Your task to perform on an android device: refresh tabs in the chrome app Image 0: 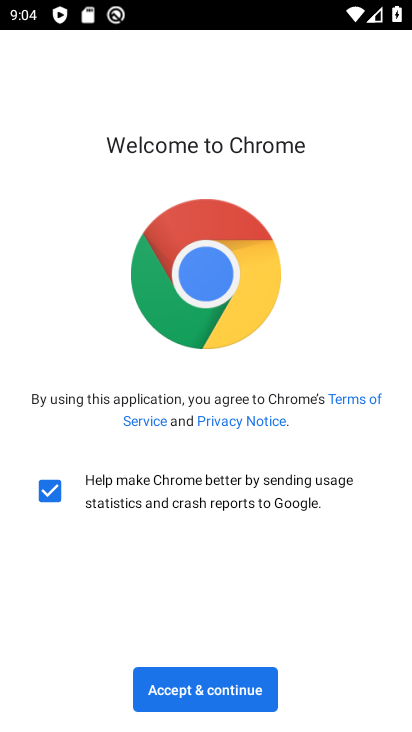
Step 0: press back button
Your task to perform on an android device: refresh tabs in the chrome app Image 1: 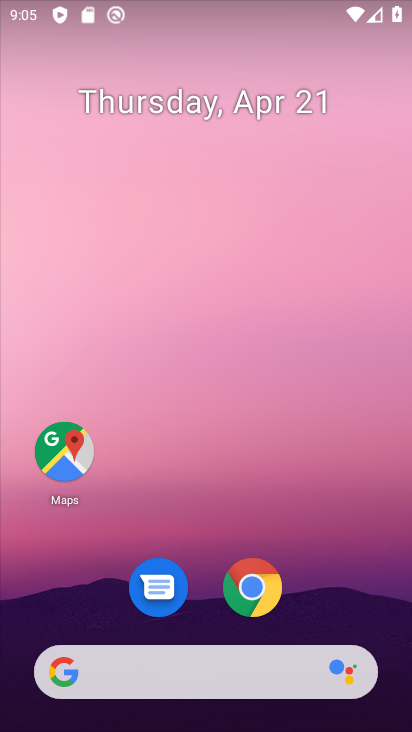
Step 1: click (248, 590)
Your task to perform on an android device: refresh tabs in the chrome app Image 2: 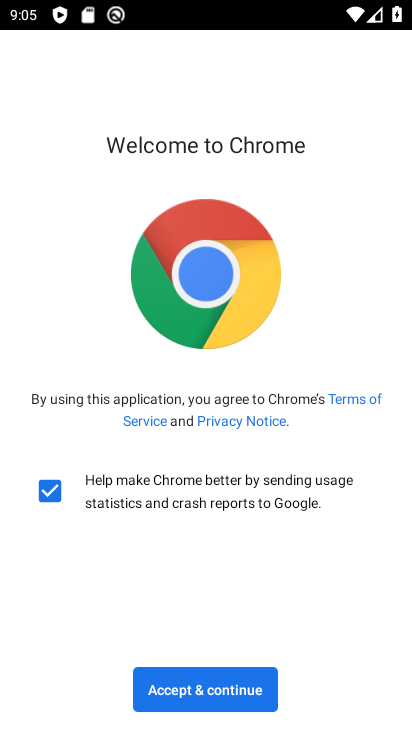
Step 2: click (181, 690)
Your task to perform on an android device: refresh tabs in the chrome app Image 3: 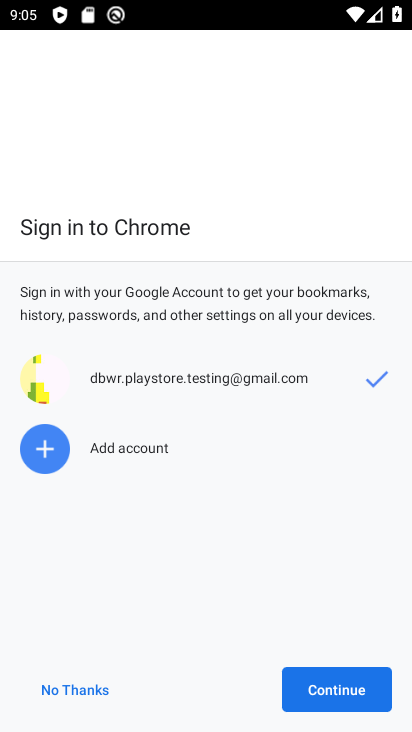
Step 3: click (333, 684)
Your task to perform on an android device: refresh tabs in the chrome app Image 4: 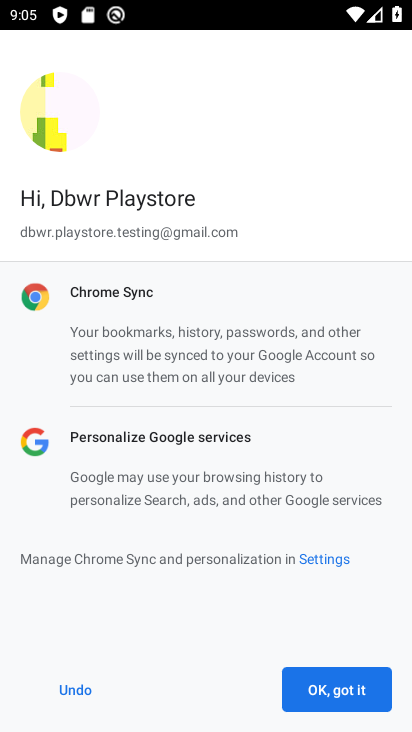
Step 4: click (333, 684)
Your task to perform on an android device: refresh tabs in the chrome app Image 5: 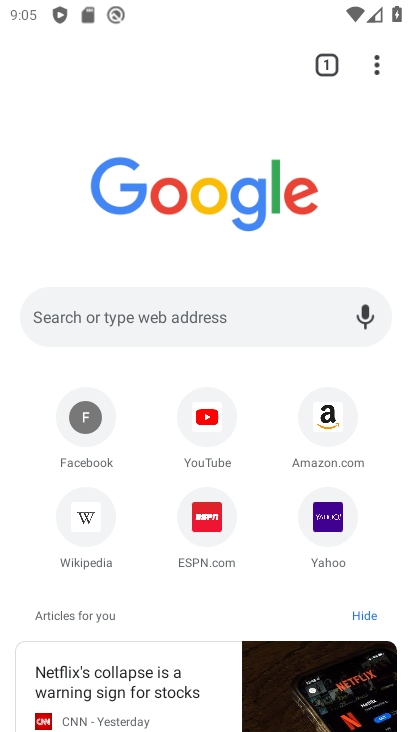
Step 5: click (379, 63)
Your task to perform on an android device: refresh tabs in the chrome app Image 6: 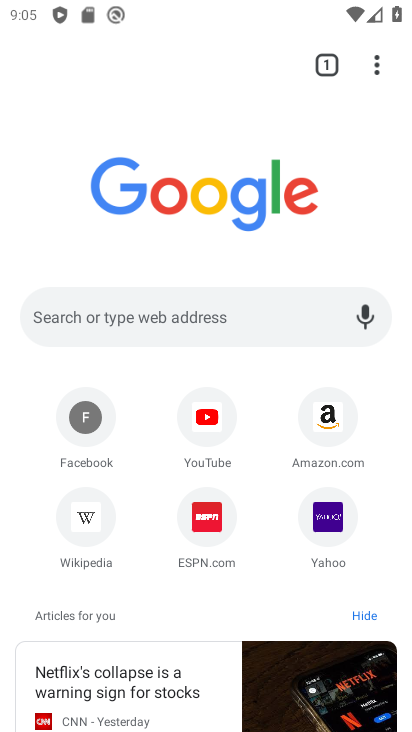
Step 6: click (378, 68)
Your task to perform on an android device: refresh tabs in the chrome app Image 7: 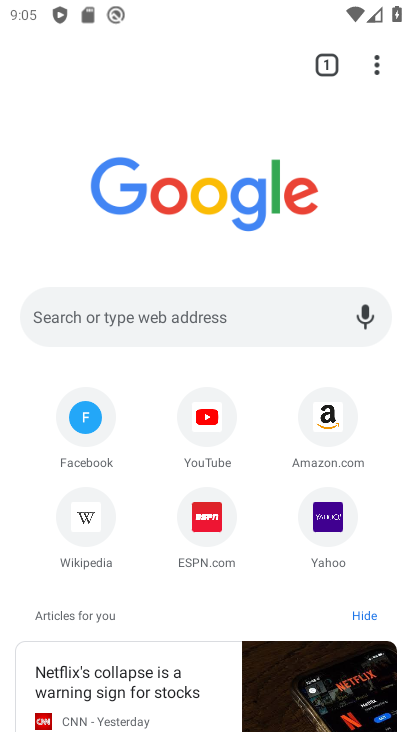
Step 7: task complete